Your task to perform on an android device: View the shopping cart on walmart.com. Search for "logitech g502" on walmart.com, select the first entry, and add it to the cart. Image 0: 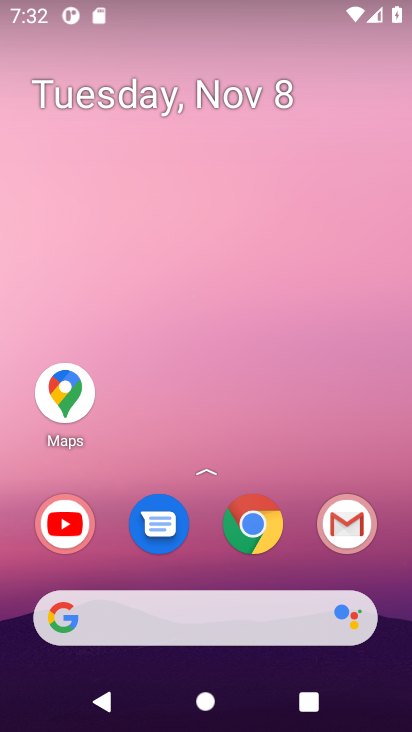
Step 0: click (253, 536)
Your task to perform on an android device: View the shopping cart on walmart.com. Search for "logitech g502" on walmart.com, select the first entry, and add it to the cart. Image 1: 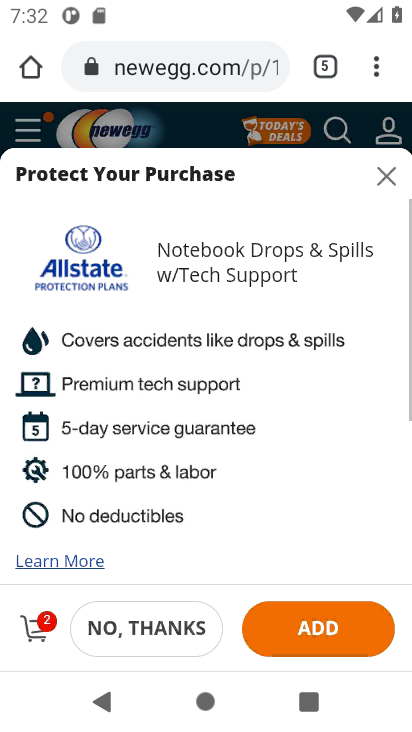
Step 1: click (153, 84)
Your task to perform on an android device: View the shopping cart on walmart.com. Search for "logitech g502" on walmart.com, select the first entry, and add it to the cart. Image 2: 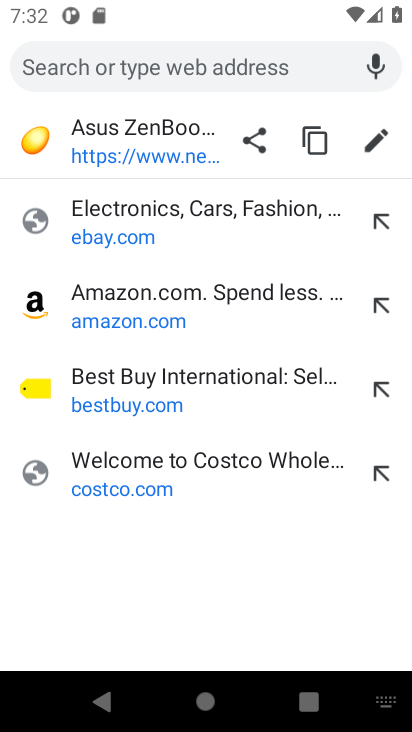
Step 2: type "walmart.com"
Your task to perform on an android device: View the shopping cart on walmart.com. Search for "logitech g502" on walmart.com, select the first entry, and add it to the cart. Image 3: 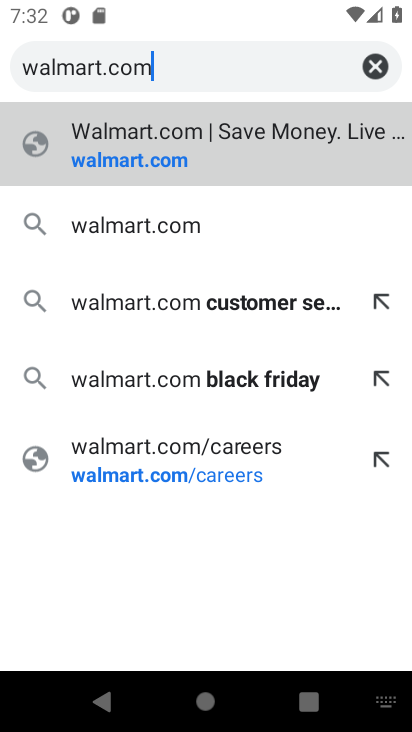
Step 3: click (157, 173)
Your task to perform on an android device: View the shopping cart on walmart.com. Search for "logitech g502" on walmart.com, select the first entry, and add it to the cart. Image 4: 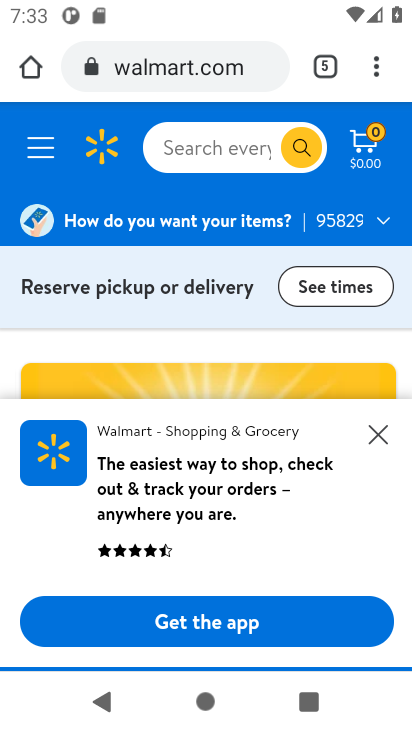
Step 4: click (387, 438)
Your task to perform on an android device: View the shopping cart on walmart.com. Search for "logitech g502" on walmart.com, select the first entry, and add it to the cart. Image 5: 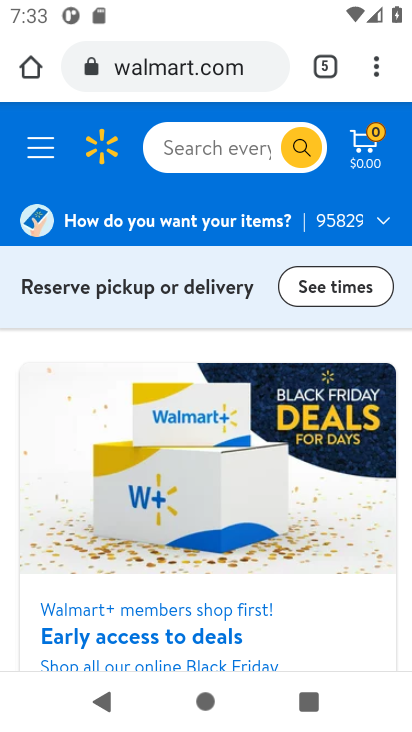
Step 5: click (374, 147)
Your task to perform on an android device: View the shopping cart on walmart.com. Search for "logitech g502" on walmart.com, select the first entry, and add it to the cart. Image 6: 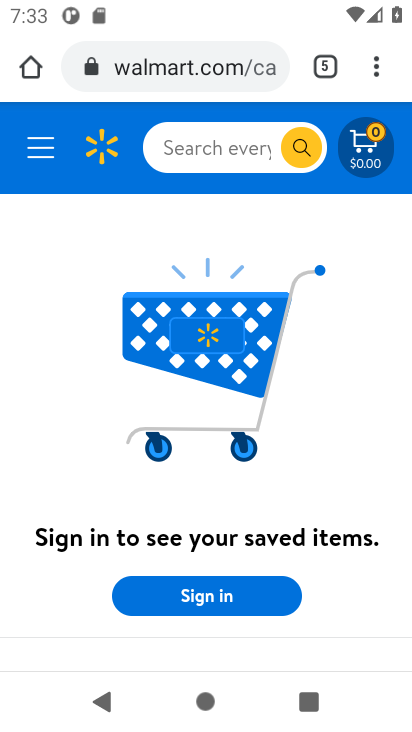
Step 6: click (222, 158)
Your task to perform on an android device: View the shopping cart on walmart.com. Search for "logitech g502" on walmart.com, select the first entry, and add it to the cart. Image 7: 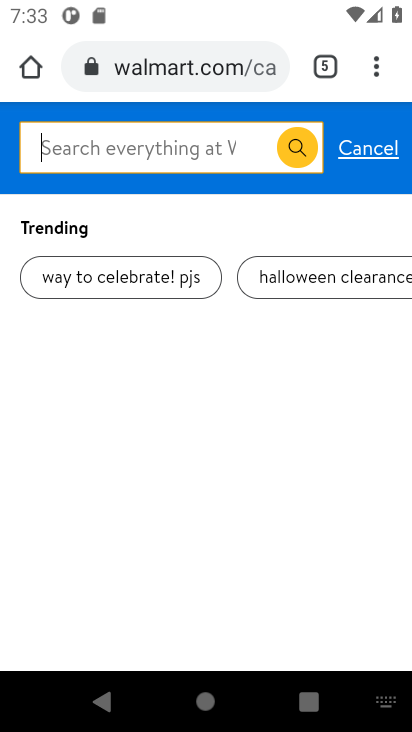
Step 7: type "logitech g502"
Your task to perform on an android device: View the shopping cart on walmart.com. Search for "logitech g502" on walmart.com, select the first entry, and add it to the cart. Image 8: 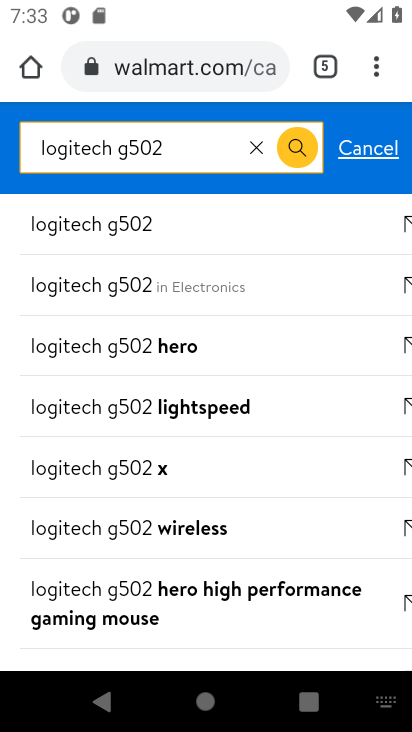
Step 8: click (101, 229)
Your task to perform on an android device: View the shopping cart on walmart.com. Search for "logitech g502" on walmart.com, select the first entry, and add it to the cart. Image 9: 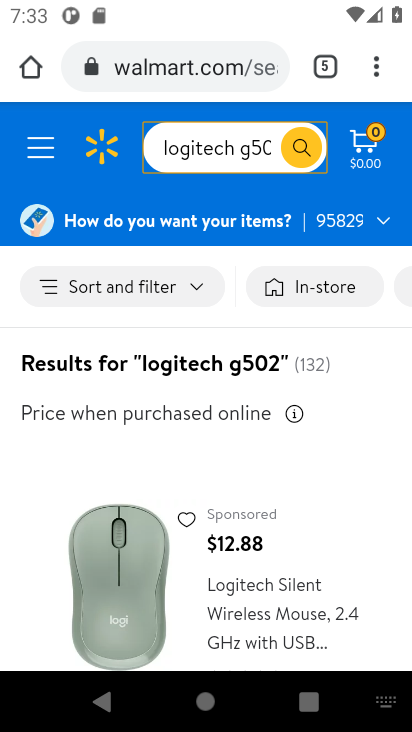
Step 9: task complete